Your task to perform on an android device: Set the phone to "Do not disturb". Image 0: 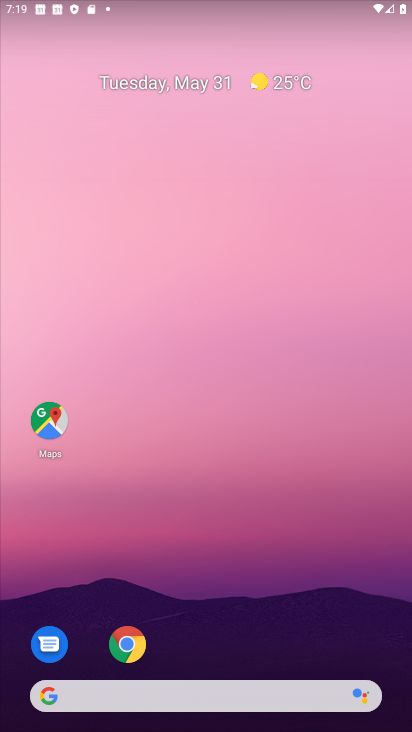
Step 0: drag from (269, 716) to (310, 369)
Your task to perform on an android device: Set the phone to "Do not disturb". Image 1: 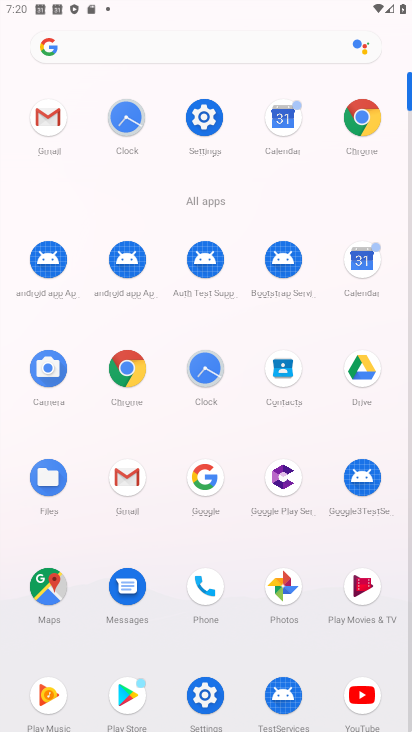
Step 1: click (209, 113)
Your task to perform on an android device: Set the phone to "Do not disturb". Image 2: 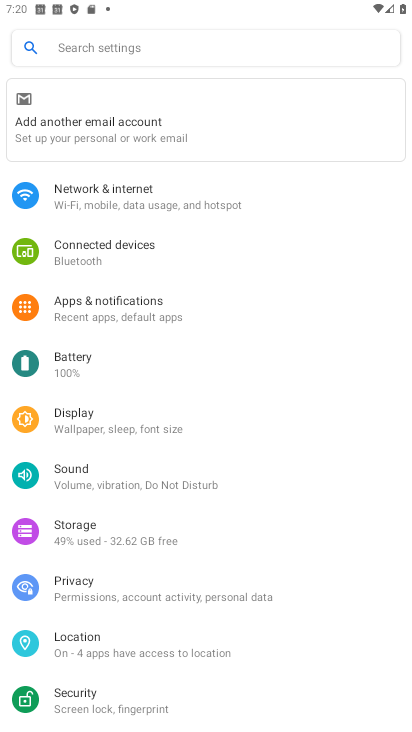
Step 2: click (116, 57)
Your task to perform on an android device: Set the phone to "Do not disturb". Image 3: 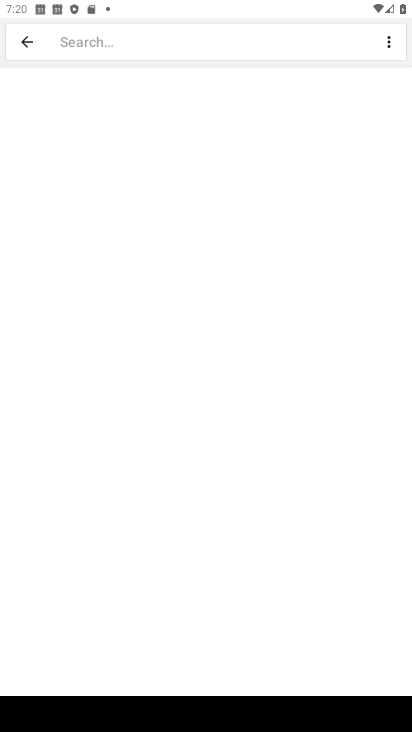
Step 3: drag from (395, 703) to (388, 654)
Your task to perform on an android device: Set the phone to "Do not disturb". Image 4: 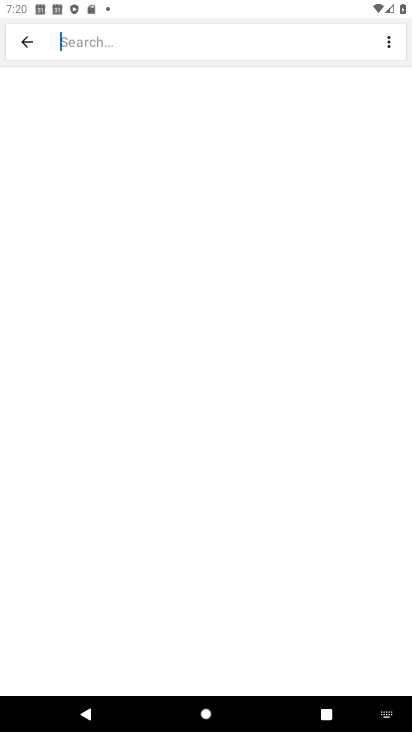
Step 4: click (393, 714)
Your task to perform on an android device: Set the phone to "Do not disturb". Image 5: 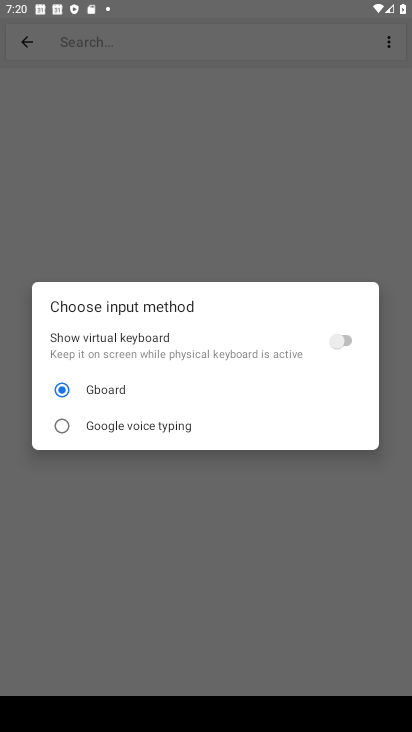
Step 5: click (340, 337)
Your task to perform on an android device: Set the phone to "Do not disturb". Image 6: 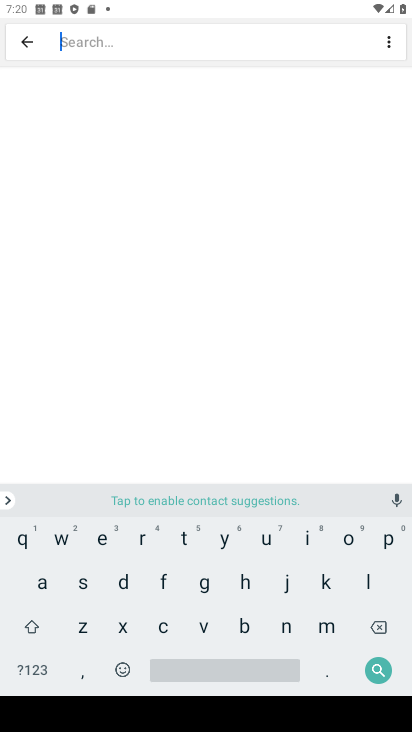
Step 6: click (115, 583)
Your task to perform on an android device: Set the phone to "Do not disturb". Image 7: 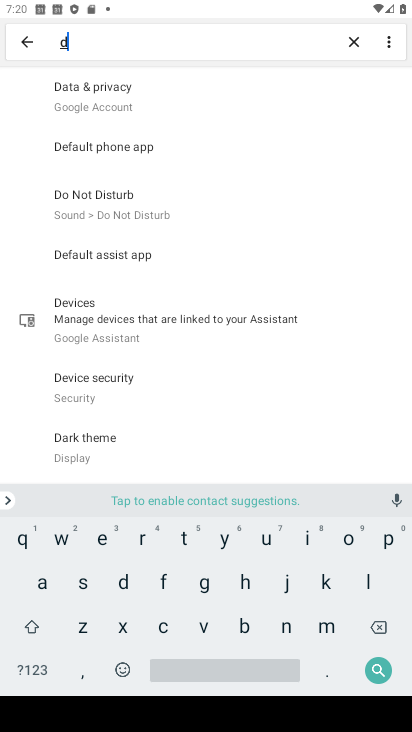
Step 7: click (289, 621)
Your task to perform on an android device: Set the phone to "Do not disturb". Image 8: 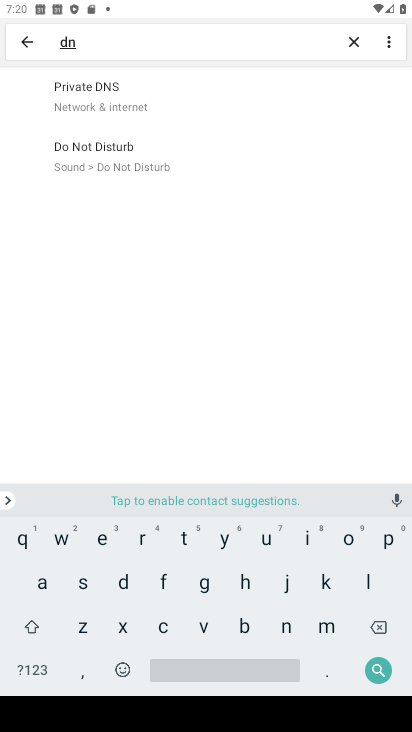
Step 8: click (121, 146)
Your task to perform on an android device: Set the phone to "Do not disturb". Image 9: 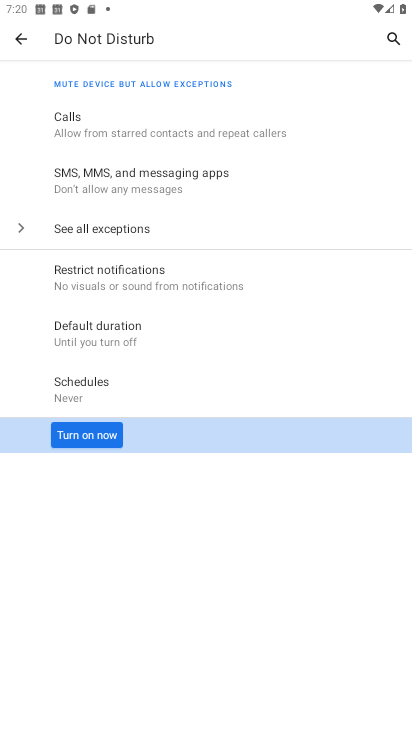
Step 9: click (81, 442)
Your task to perform on an android device: Set the phone to "Do not disturb". Image 10: 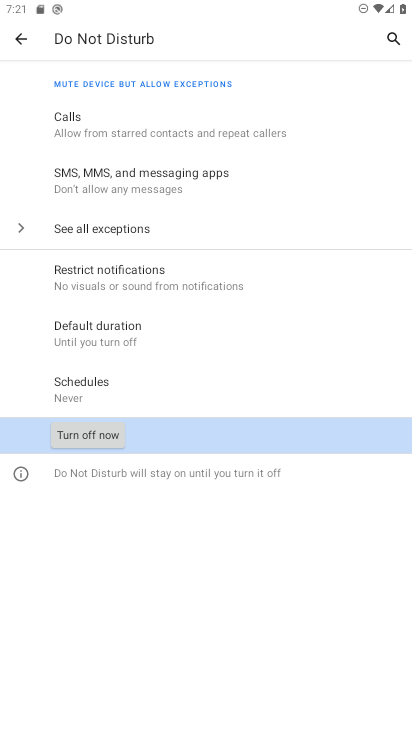
Step 10: task complete